Your task to perform on an android device: see creations saved in the google photos Image 0: 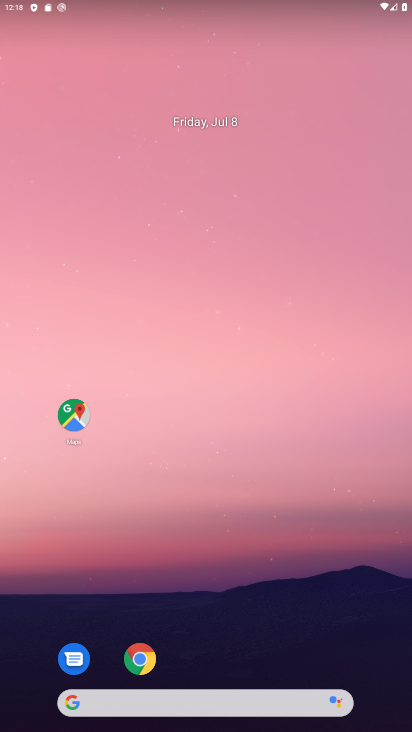
Step 0: drag from (255, 638) to (256, 225)
Your task to perform on an android device: see creations saved in the google photos Image 1: 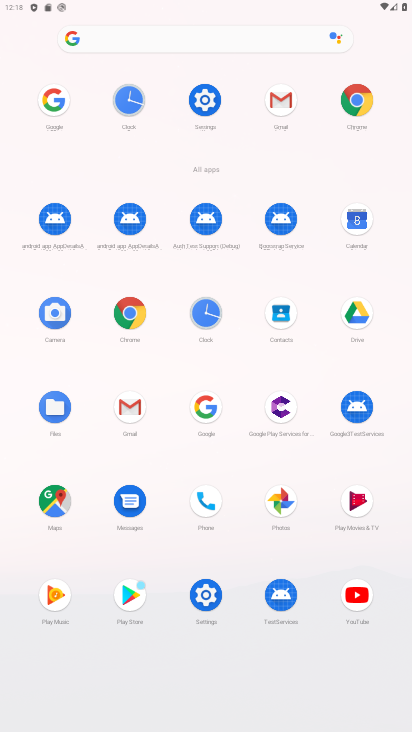
Step 1: click (295, 501)
Your task to perform on an android device: see creations saved in the google photos Image 2: 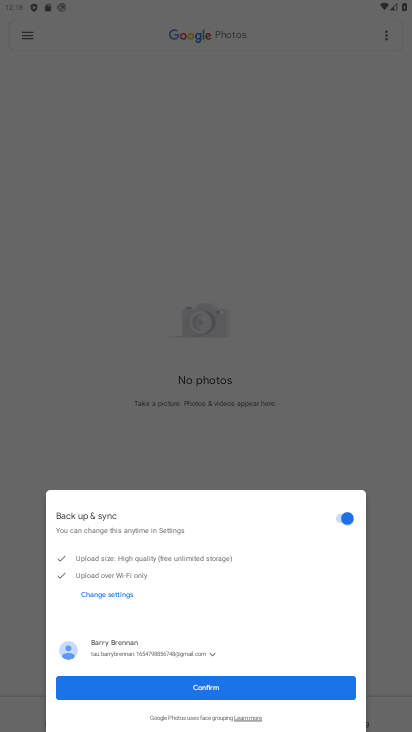
Step 2: click (214, 677)
Your task to perform on an android device: see creations saved in the google photos Image 3: 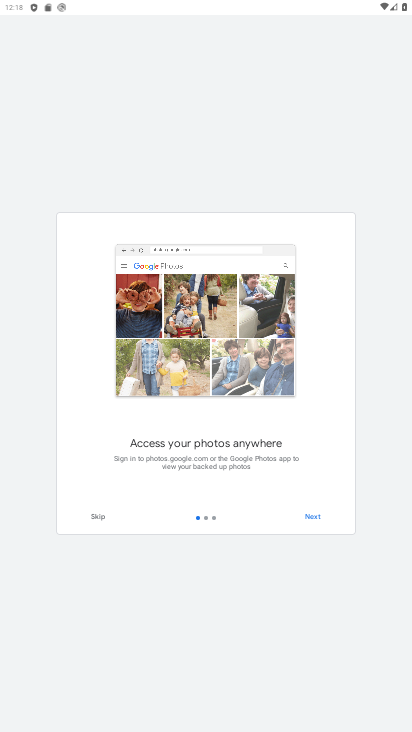
Step 3: click (314, 515)
Your task to perform on an android device: see creations saved in the google photos Image 4: 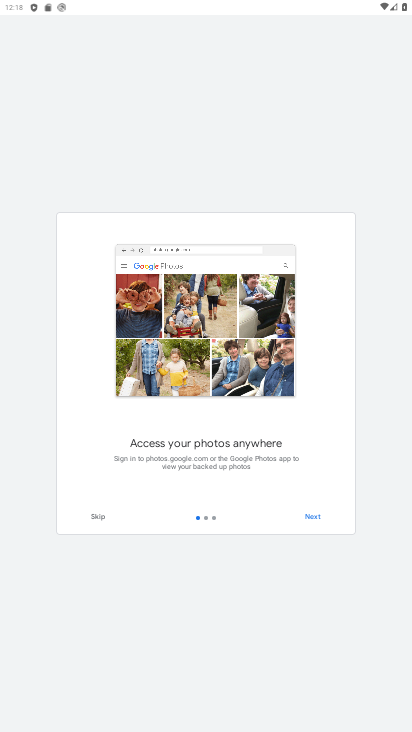
Step 4: click (315, 513)
Your task to perform on an android device: see creations saved in the google photos Image 5: 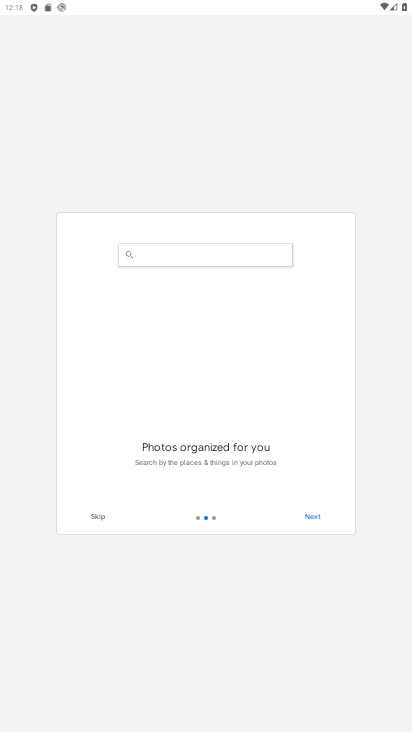
Step 5: click (315, 513)
Your task to perform on an android device: see creations saved in the google photos Image 6: 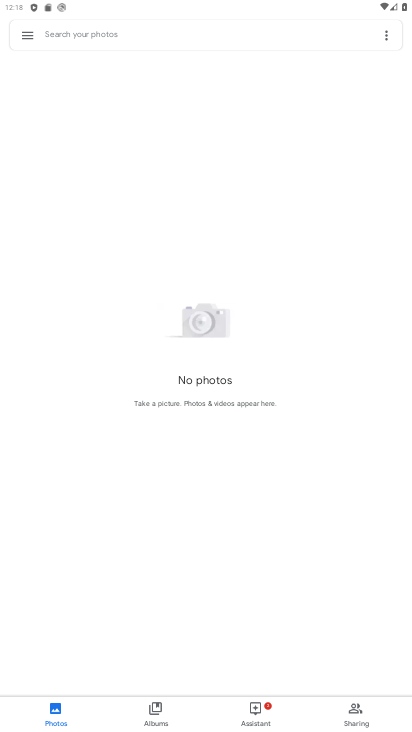
Step 6: click (307, 520)
Your task to perform on an android device: see creations saved in the google photos Image 7: 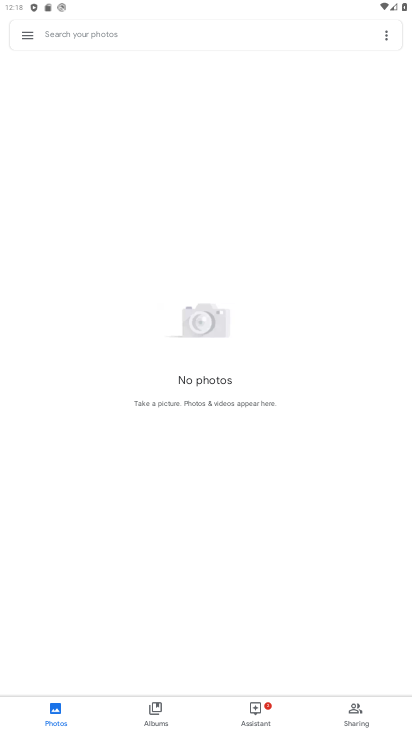
Step 7: click (21, 37)
Your task to perform on an android device: see creations saved in the google photos Image 8: 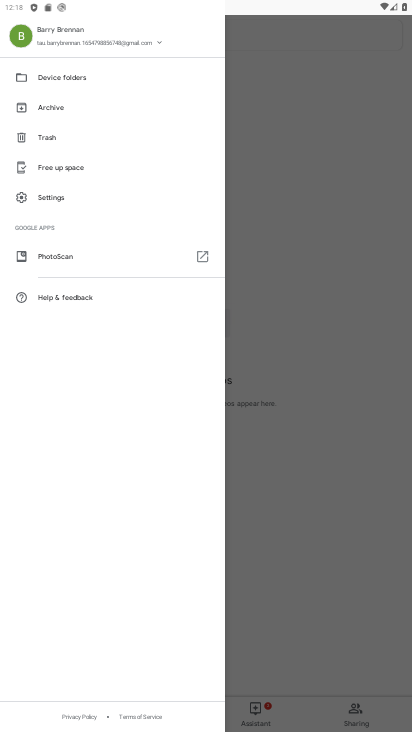
Step 8: click (89, 196)
Your task to perform on an android device: see creations saved in the google photos Image 9: 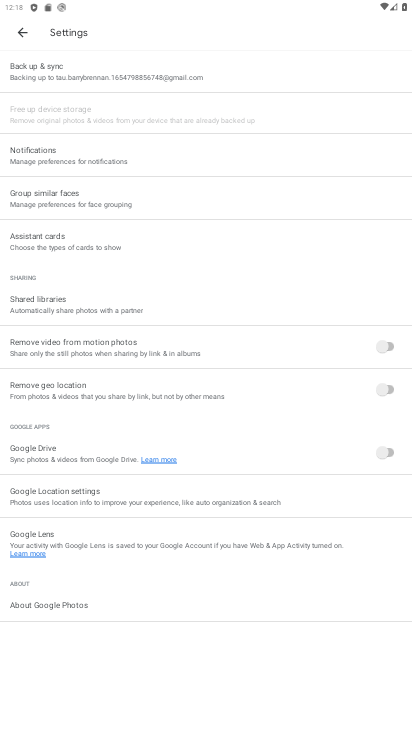
Step 9: task complete